Your task to perform on an android device: Open calendar and show me the third week of next month Image 0: 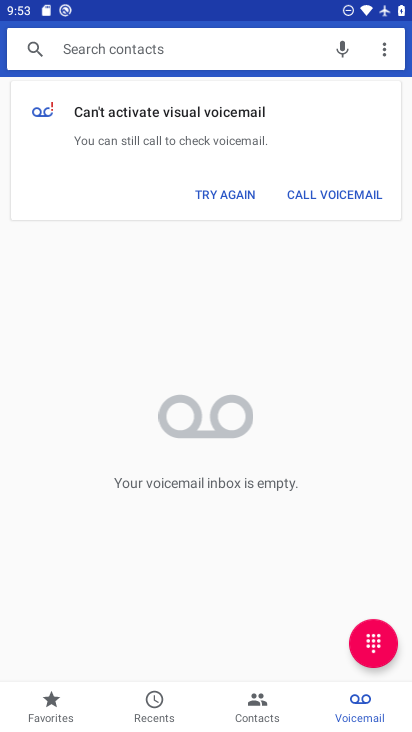
Step 0: press home button
Your task to perform on an android device: Open calendar and show me the third week of next month Image 1: 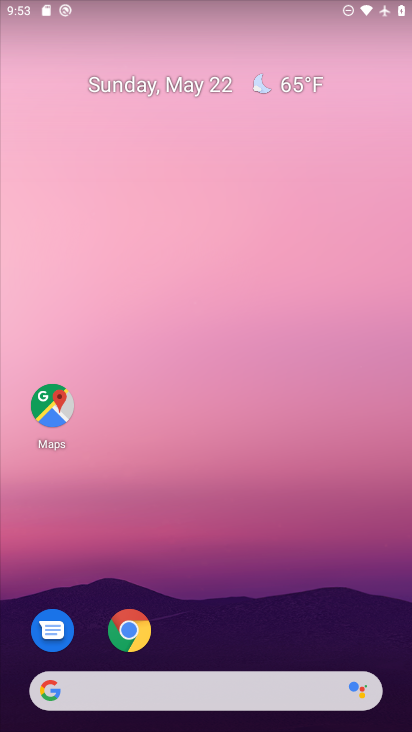
Step 1: drag from (122, 673) to (305, 118)
Your task to perform on an android device: Open calendar and show me the third week of next month Image 2: 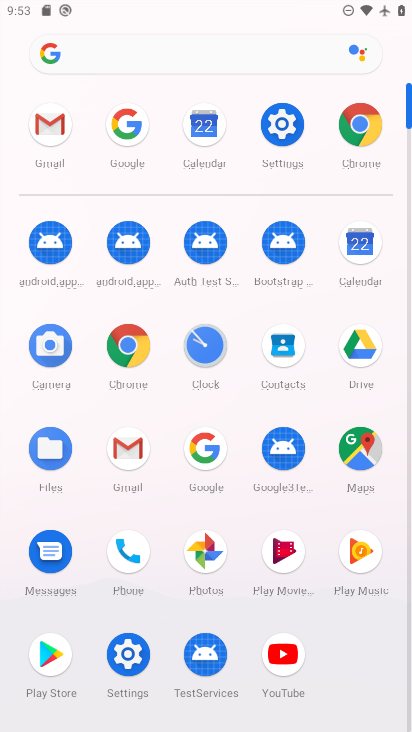
Step 2: click (364, 250)
Your task to perform on an android device: Open calendar and show me the third week of next month Image 3: 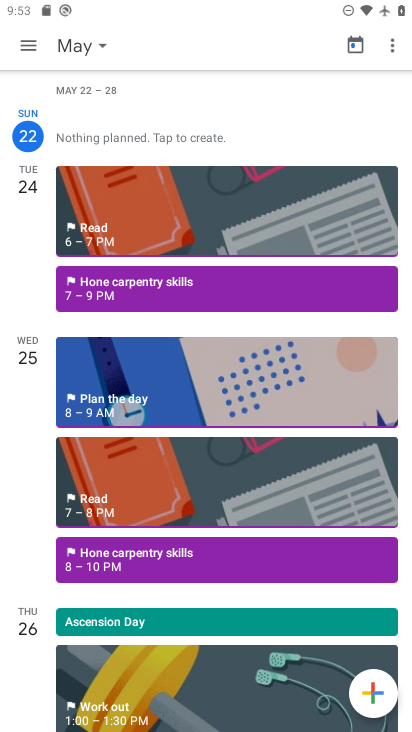
Step 3: click (86, 51)
Your task to perform on an android device: Open calendar and show me the third week of next month Image 4: 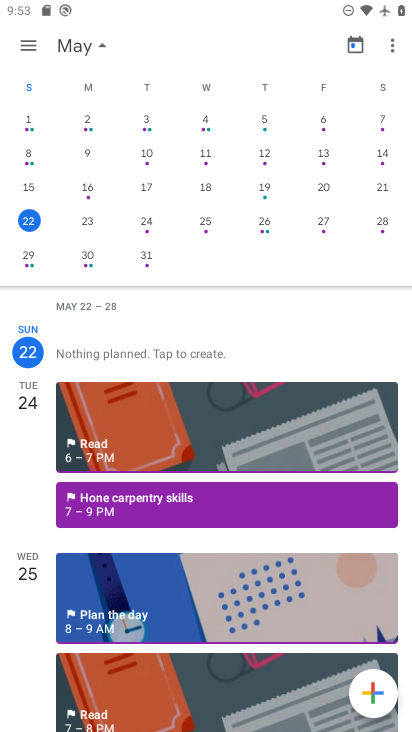
Step 4: drag from (384, 160) to (18, 313)
Your task to perform on an android device: Open calendar and show me the third week of next month Image 5: 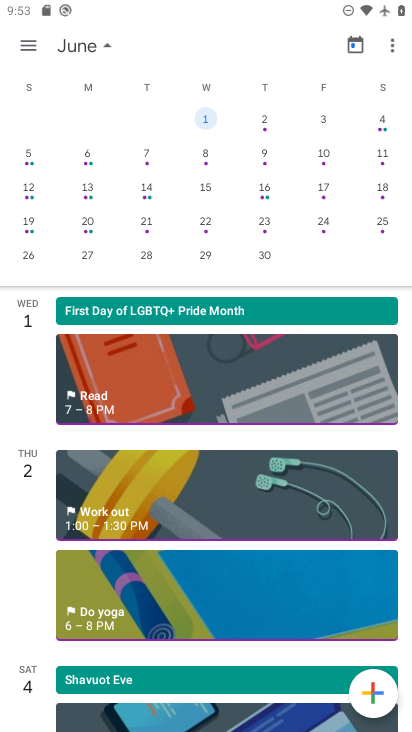
Step 5: click (28, 195)
Your task to perform on an android device: Open calendar and show me the third week of next month Image 6: 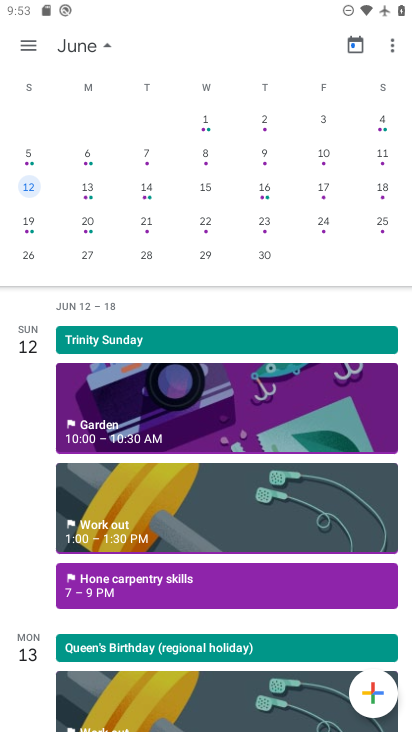
Step 6: click (35, 49)
Your task to perform on an android device: Open calendar and show me the third week of next month Image 7: 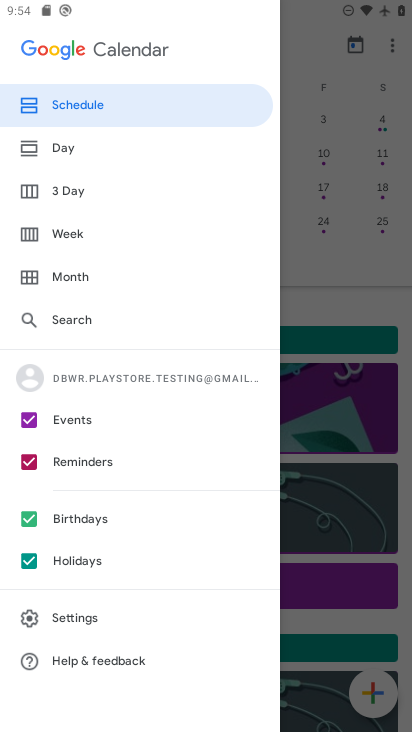
Step 7: click (70, 242)
Your task to perform on an android device: Open calendar and show me the third week of next month Image 8: 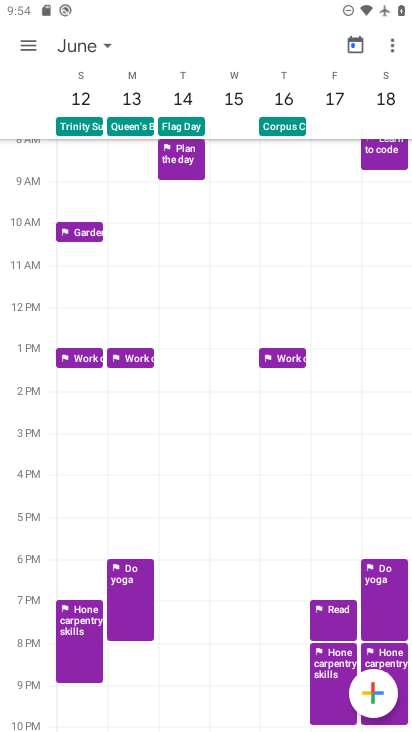
Step 8: task complete